Your task to perform on an android device: turn off notifications in google photos Image 0: 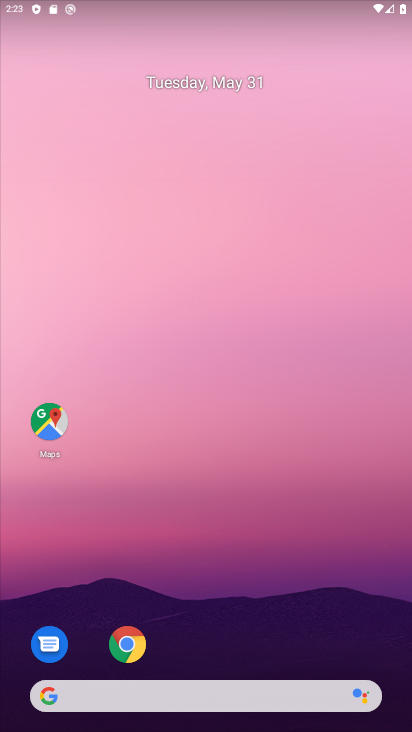
Step 0: press home button
Your task to perform on an android device: turn off notifications in google photos Image 1: 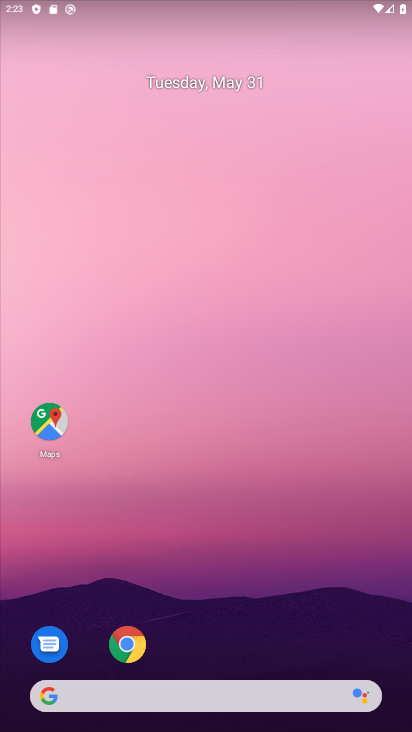
Step 1: drag from (248, 640) to (252, 123)
Your task to perform on an android device: turn off notifications in google photos Image 2: 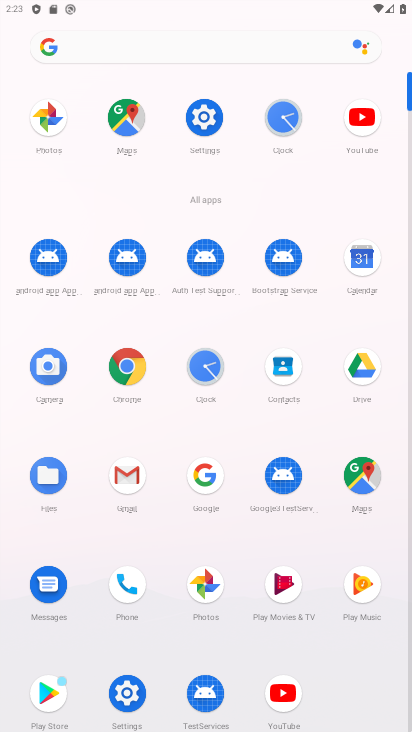
Step 2: click (52, 114)
Your task to perform on an android device: turn off notifications in google photos Image 3: 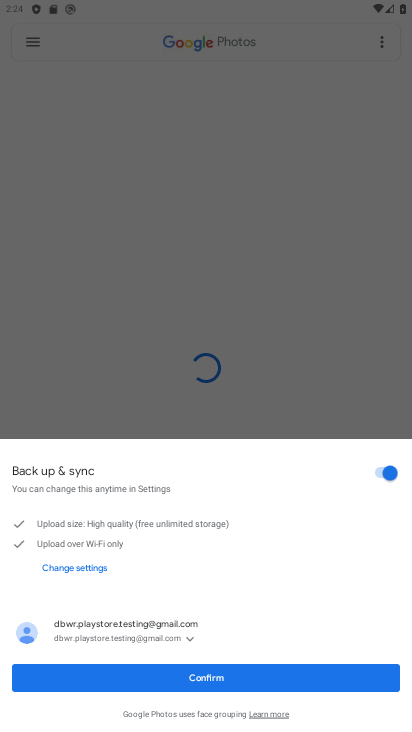
Step 3: click (193, 677)
Your task to perform on an android device: turn off notifications in google photos Image 4: 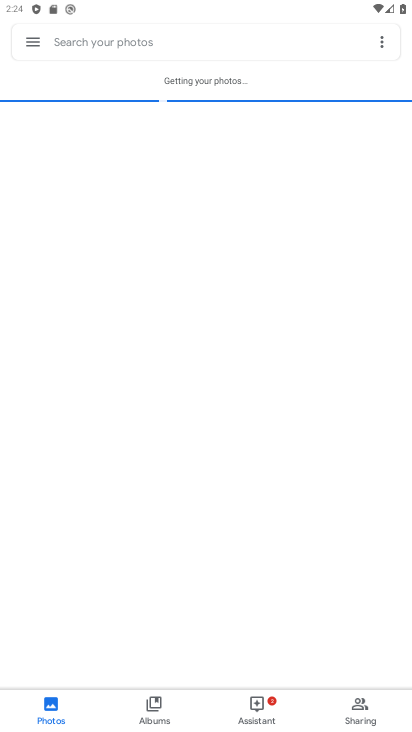
Step 4: click (29, 45)
Your task to perform on an android device: turn off notifications in google photos Image 5: 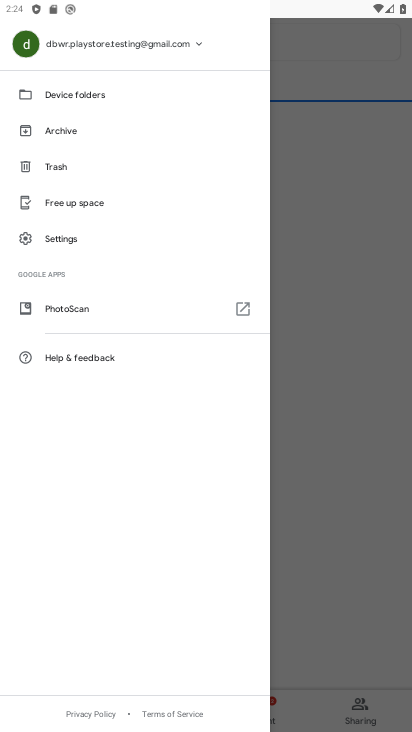
Step 5: click (54, 234)
Your task to perform on an android device: turn off notifications in google photos Image 6: 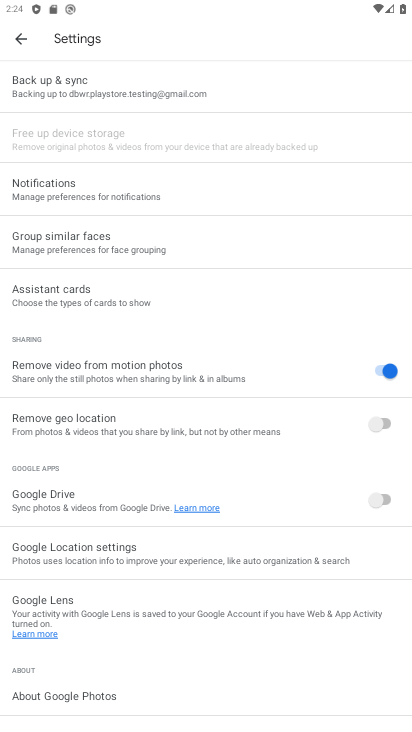
Step 6: click (63, 179)
Your task to perform on an android device: turn off notifications in google photos Image 7: 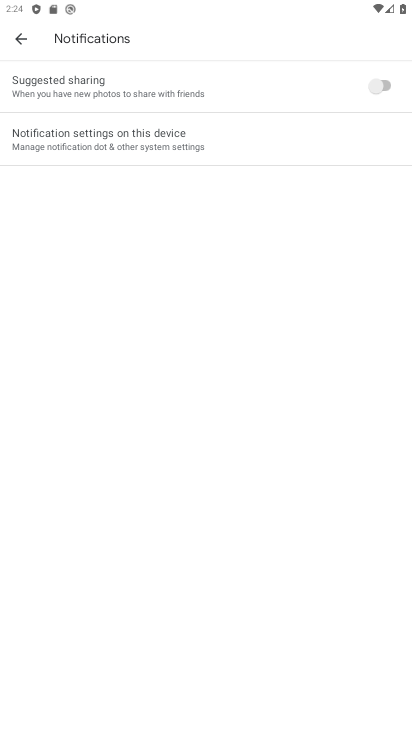
Step 7: click (56, 147)
Your task to perform on an android device: turn off notifications in google photos Image 8: 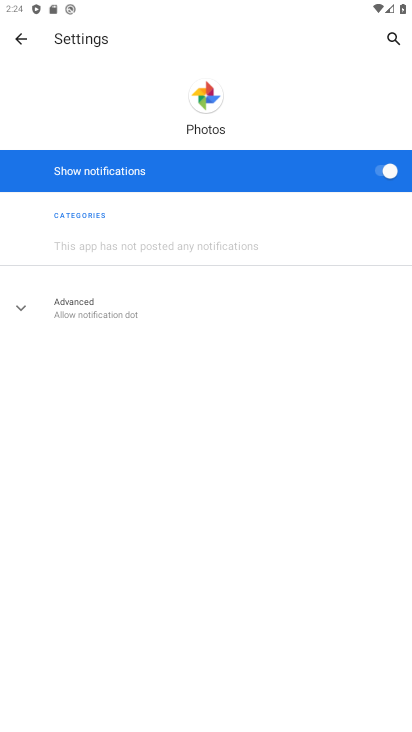
Step 8: click (383, 166)
Your task to perform on an android device: turn off notifications in google photos Image 9: 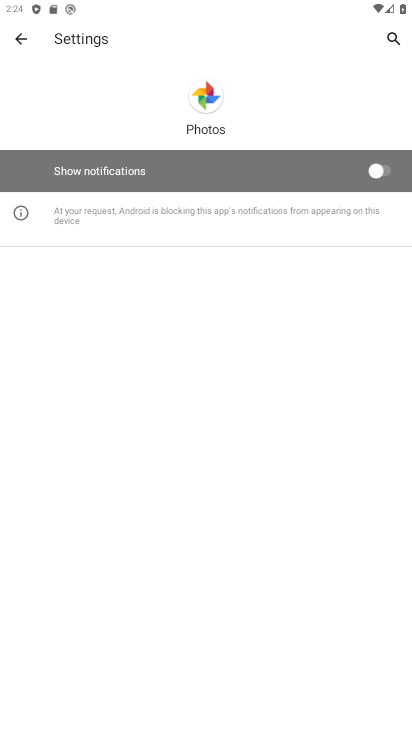
Step 9: task complete